Your task to perform on an android device: add a contact in the contacts app Image 0: 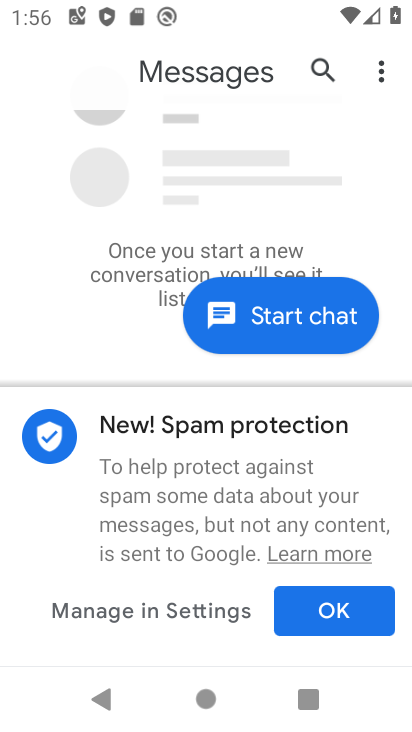
Step 0: drag from (411, 531) to (296, 217)
Your task to perform on an android device: add a contact in the contacts app Image 1: 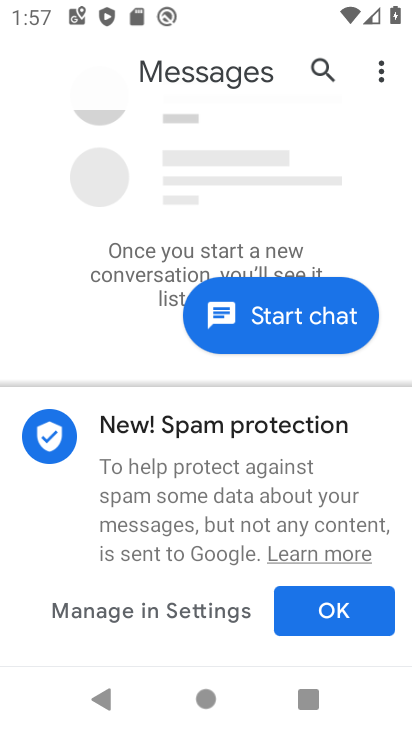
Step 1: press home button
Your task to perform on an android device: add a contact in the contacts app Image 2: 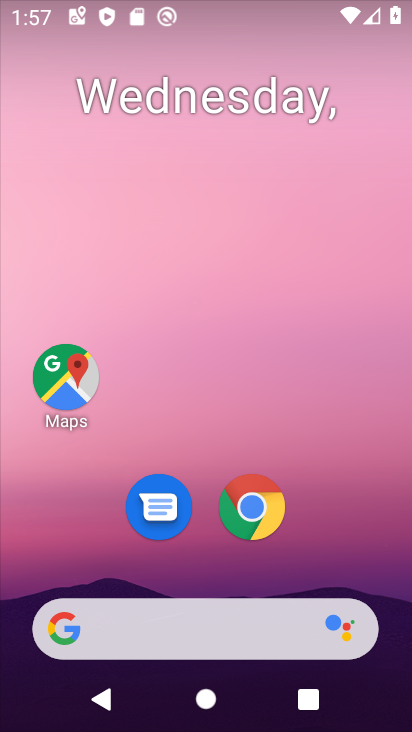
Step 2: drag from (361, 449) to (289, 133)
Your task to perform on an android device: add a contact in the contacts app Image 3: 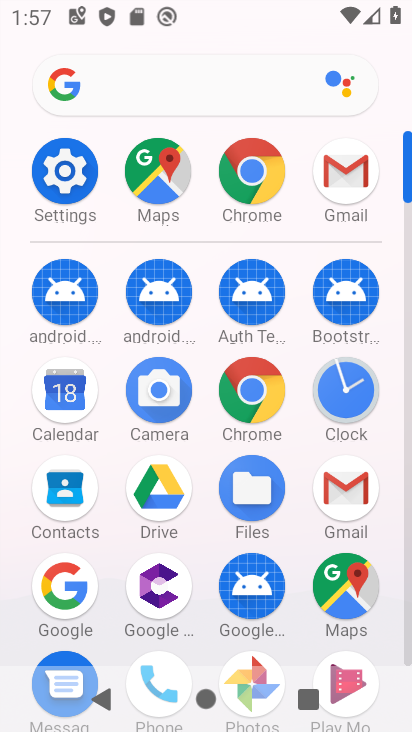
Step 3: click (63, 489)
Your task to perform on an android device: add a contact in the contacts app Image 4: 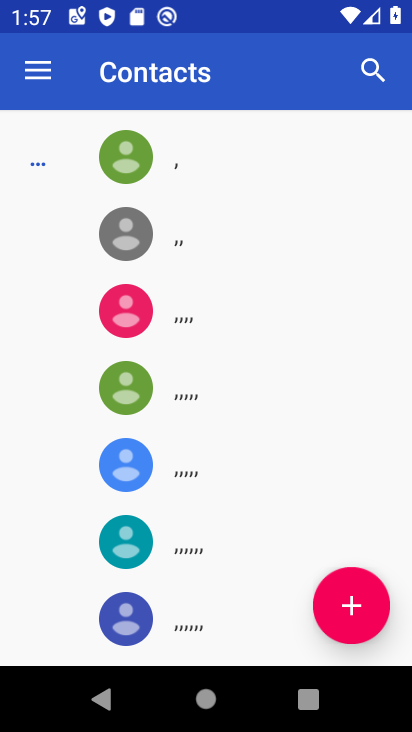
Step 4: click (367, 597)
Your task to perform on an android device: add a contact in the contacts app Image 5: 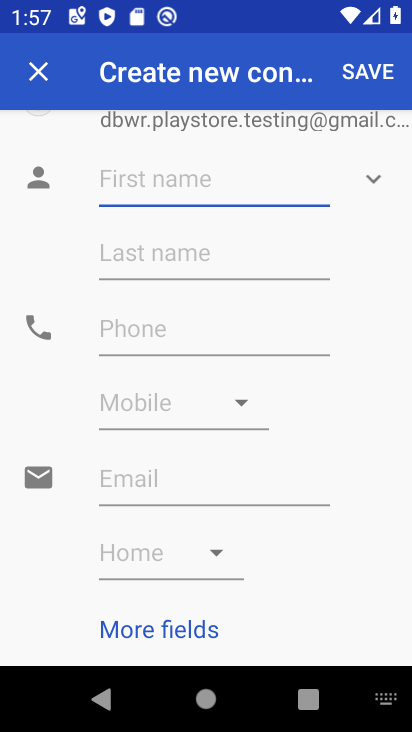
Step 5: type "tiger"
Your task to perform on an android device: add a contact in the contacts app Image 6: 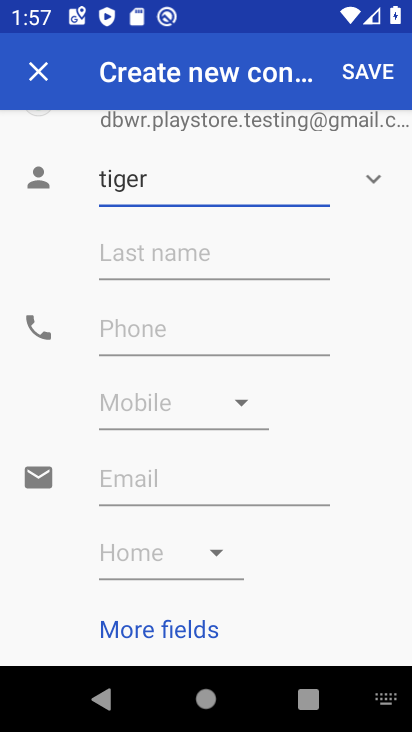
Step 6: click (265, 323)
Your task to perform on an android device: add a contact in the contacts app Image 7: 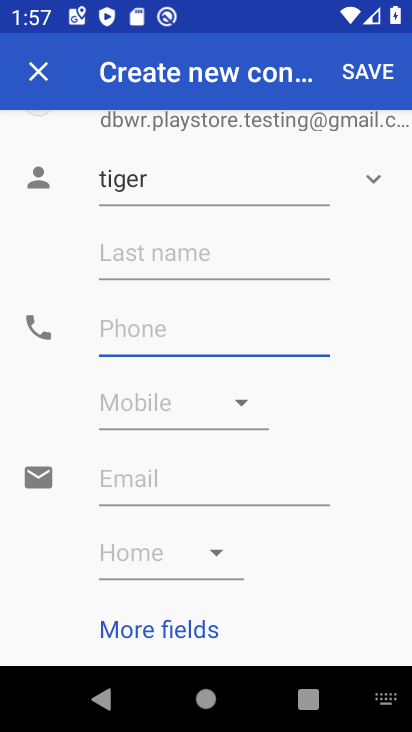
Step 7: type "983732732"
Your task to perform on an android device: add a contact in the contacts app Image 8: 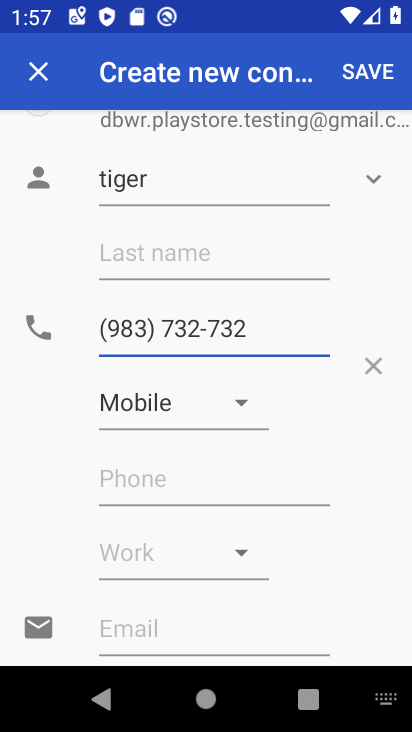
Step 8: click (362, 68)
Your task to perform on an android device: add a contact in the contacts app Image 9: 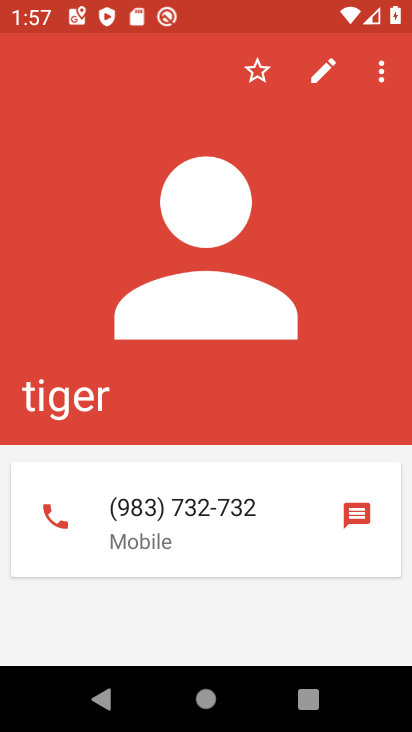
Step 9: task complete